Your task to perform on an android device: Search for Italian restaurants on Maps Image 0: 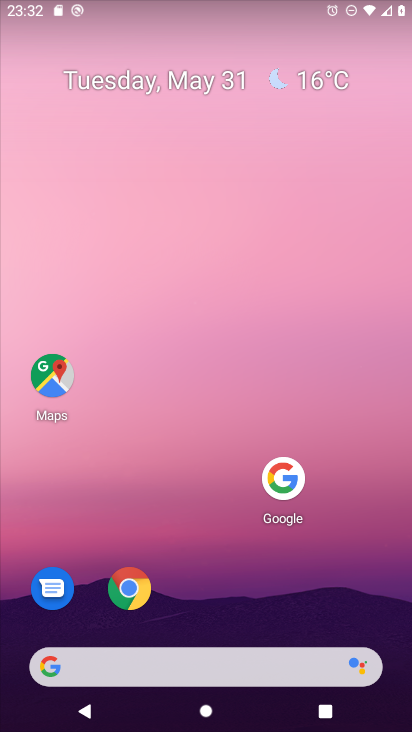
Step 0: press home button
Your task to perform on an android device: Search for Italian restaurants on Maps Image 1: 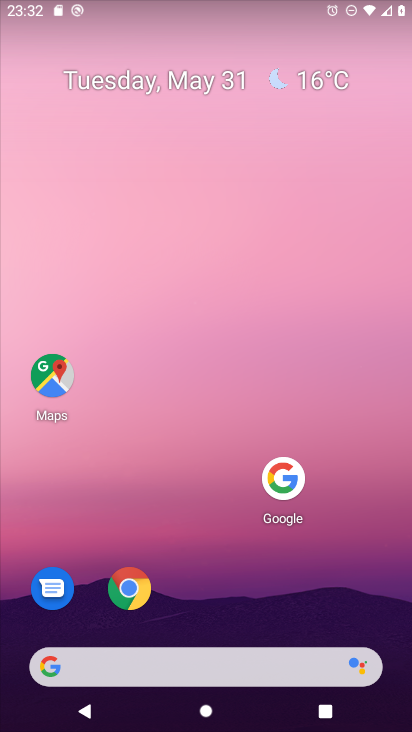
Step 1: click (56, 384)
Your task to perform on an android device: Search for Italian restaurants on Maps Image 2: 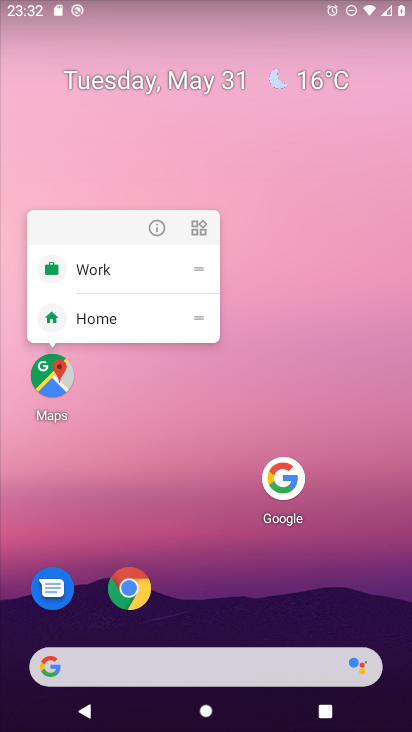
Step 2: click (49, 377)
Your task to perform on an android device: Search for Italian restaurants on Maps Image 3: 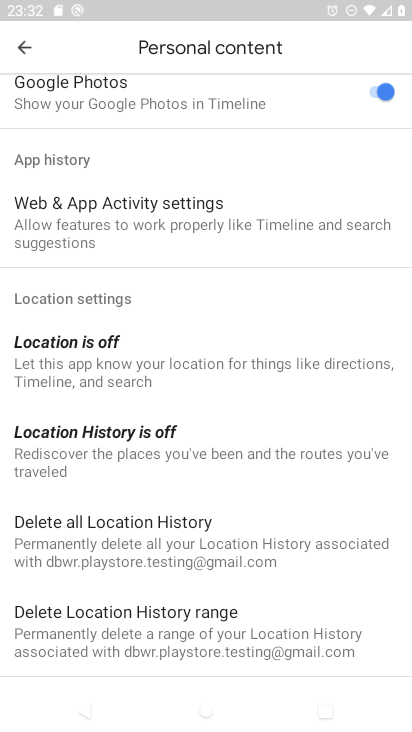
Step 3: click (23, 49)
Your task to perform on an android device: Search for Italian restaurants on Maps Image 4: 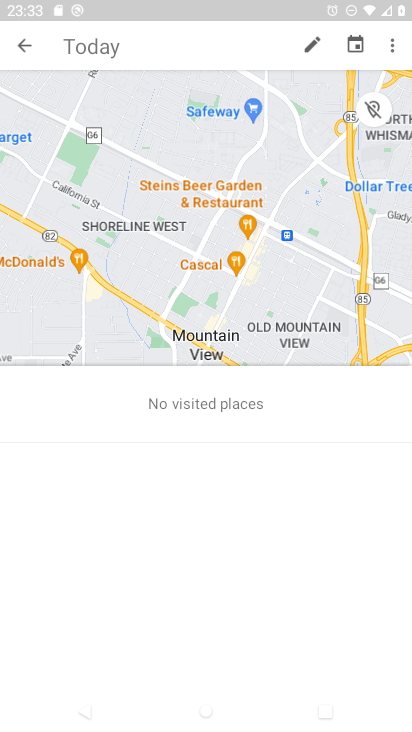
Step 4: click (20, 47)
Your task to perform on an android device: Search for Italian restaurants on Maps Image 5: 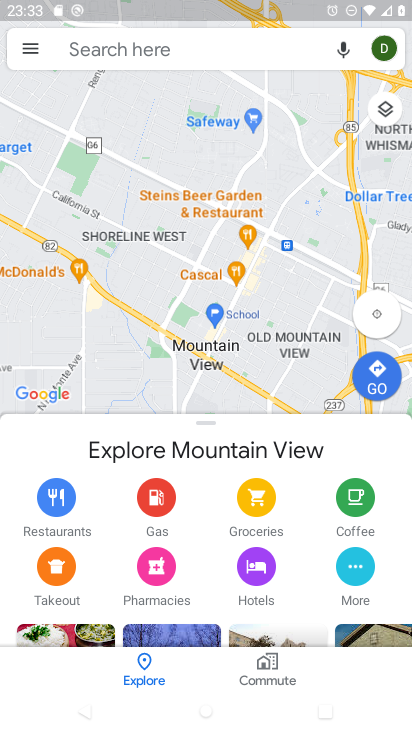
Step 5: click (134, 48)
Your task to perform on an android device: Search for Italian restaurants on Maps Image 6: 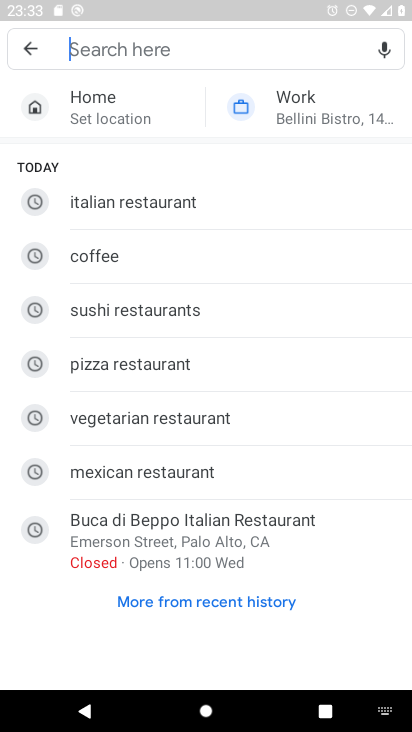
Step 6: click (144, 196)
Your task to perform on an android device: Search for Italian restaurants on Maps Image 7: 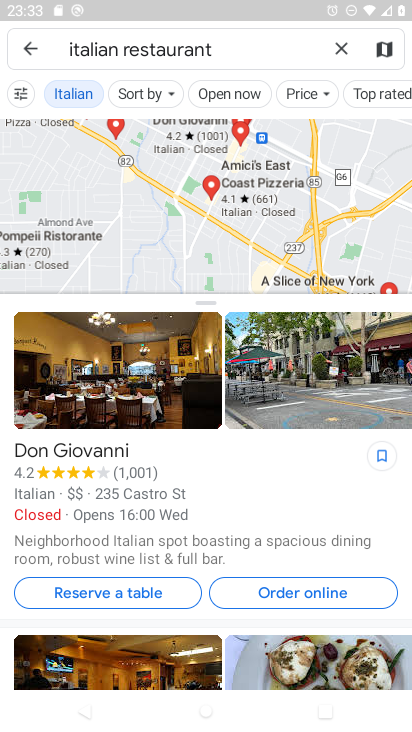
Step 7: task complete